Your task to perform on an android device: Turn off the flashlight Image 0: 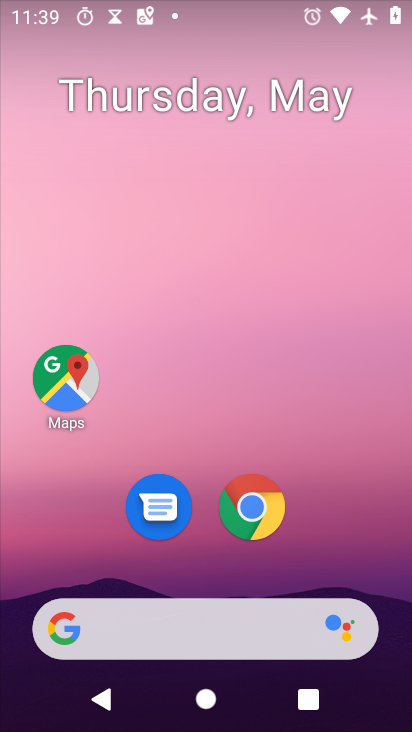
Step 0: drag from (322, 449) to (264, 18)
Your task to perform on an android device: Turn off the flashlight Image 1: 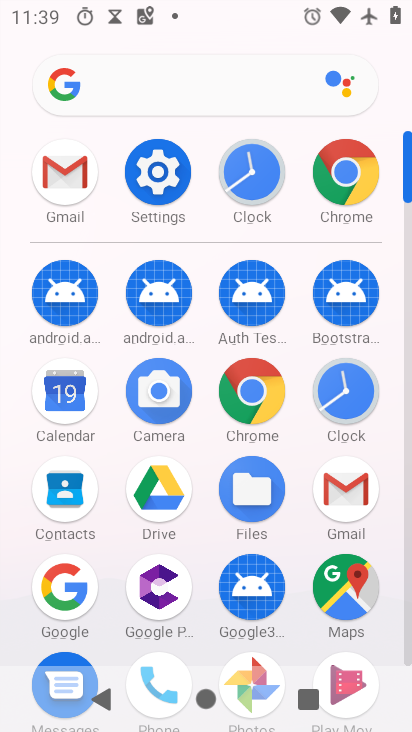
Step 1: drag from (13, 510) to (11, 150)
Your task to perform on an android device: Turn off the flashlight Image 2: 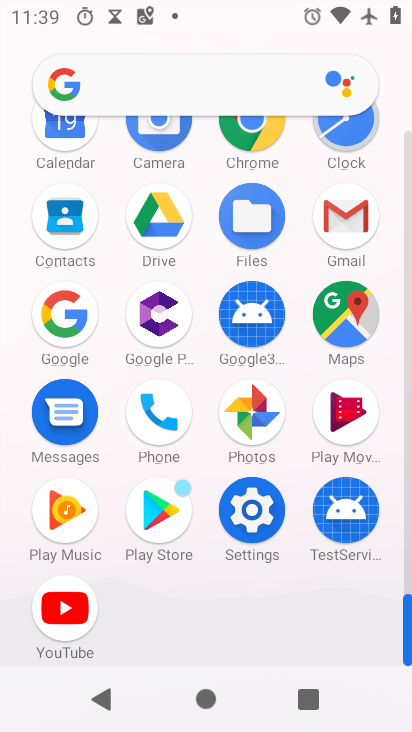
Step 2: click (258, 506)
Your task to perform on an android device: Turn off the flashlight Image 3: 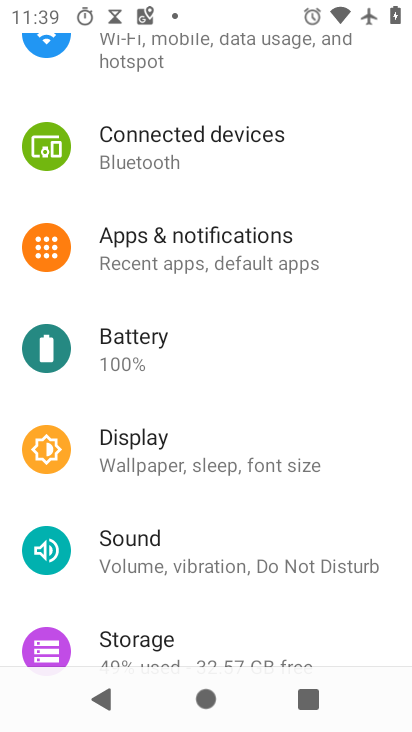
Step 3: drag from (267, 159) to (248, 563)
Your task to perform on an android device: Turn off the flashlight Image 4: 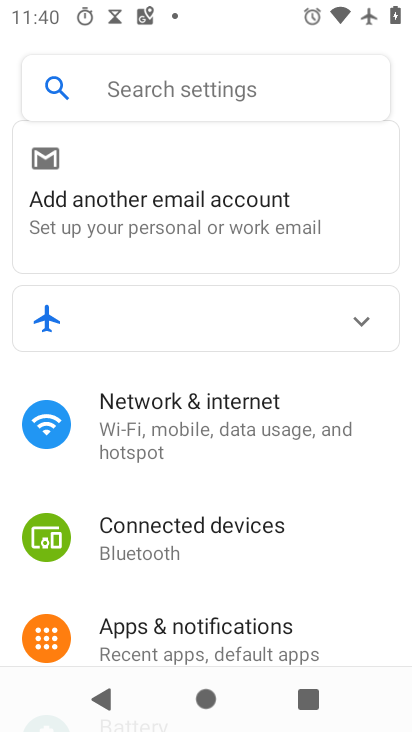
Step 4: click (172, 400)
Your task to perform on an android device: Turn off the flashlight Image 5: 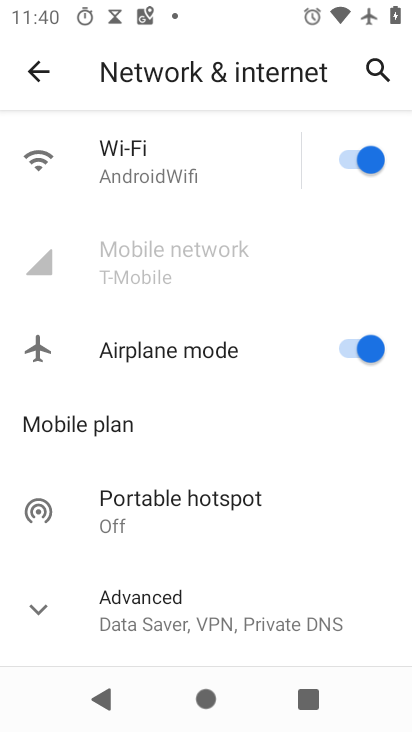
Step 5: drag from (236, 528) to (196, 128)
Your task to perform on an android device: Turn off the flashlight Image 6: 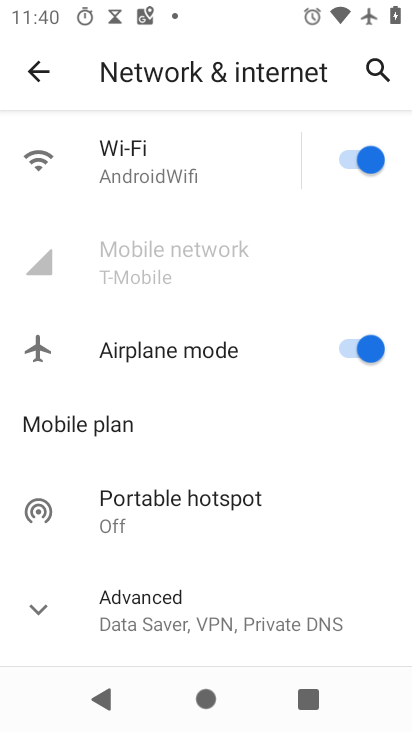
Step 6: click (35, 614)
Your task to perform on an android device: Turn off the flashlight Image 7: 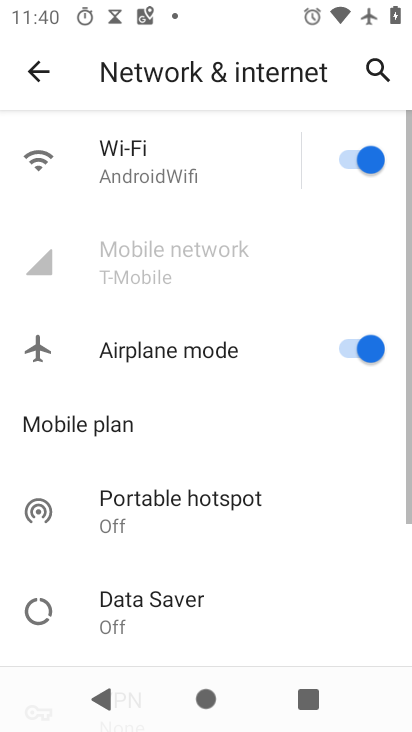
Step 7: task complete